Your task to perform on an android device: clear all cookies in the chrome app Image 0: 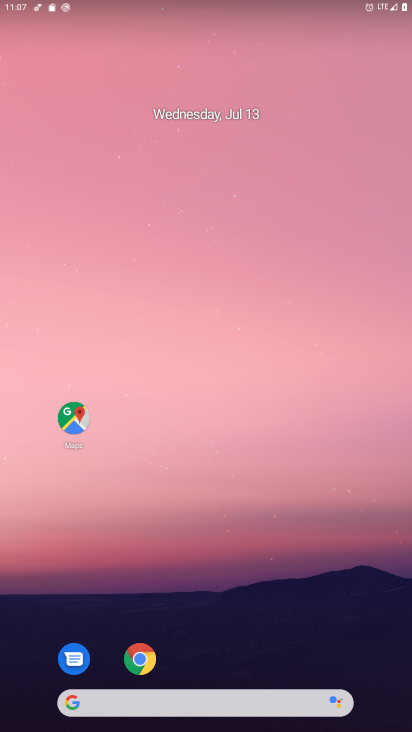
Step 0: press home button
Your task to perform on an android device: clear all cookies in the chrome app Image 1: 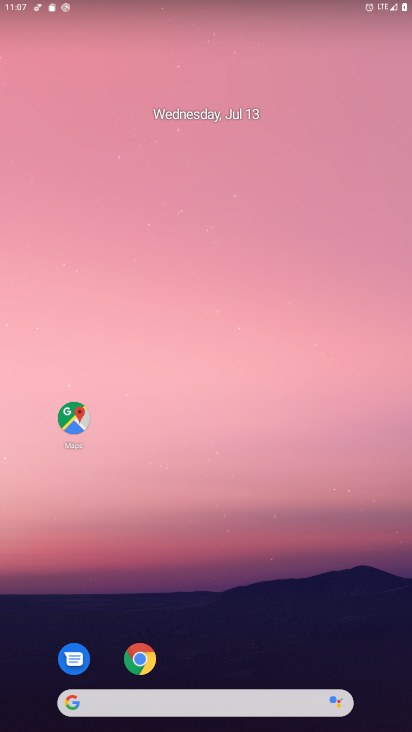
Step 1: click (138, 655)
Your task to perform on an android device: clear all cookies in the chrome app Image 2: 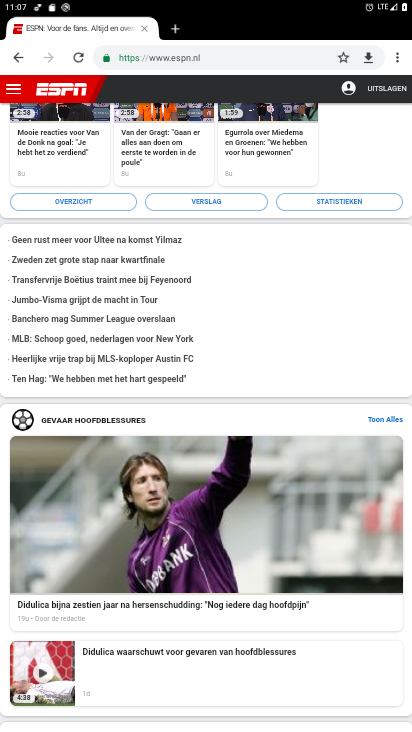
Step 2: click (396, 56)
Your task to perform on an android device: clear all cookies in the chrome app Image 3: 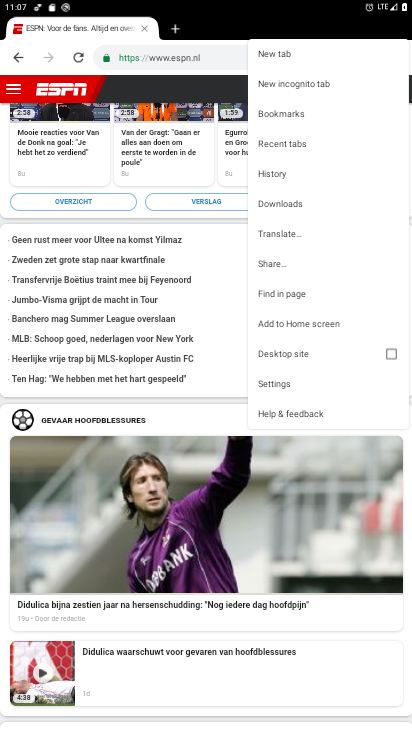
Step 3: click (289, 177)
Your task to perform on an android device: clear all cookies in the chrome app Image 4: 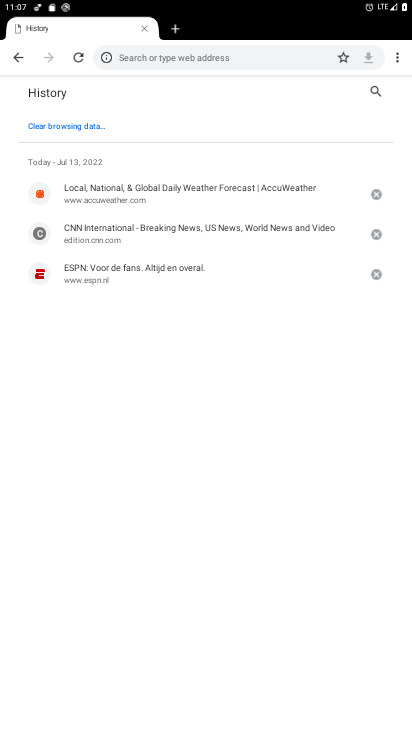
Step 4: click (85, 124)
Your task to perform on an android device: clear all cookies in the chrome app Image 5: 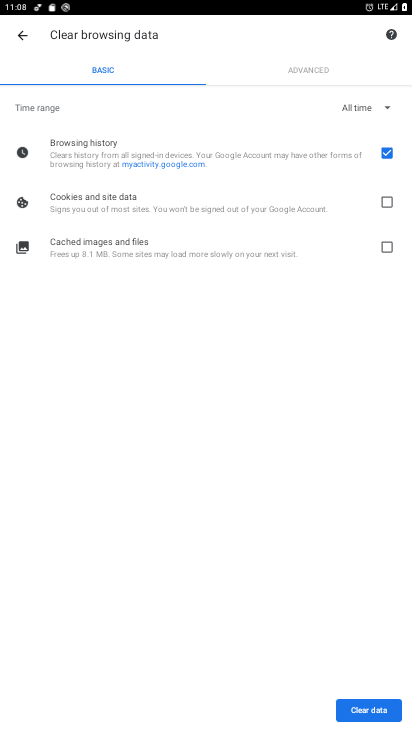
Step 5: click (384, 151)
Your task to perform on an android device: clear all cookies in the chrome app Image 6: 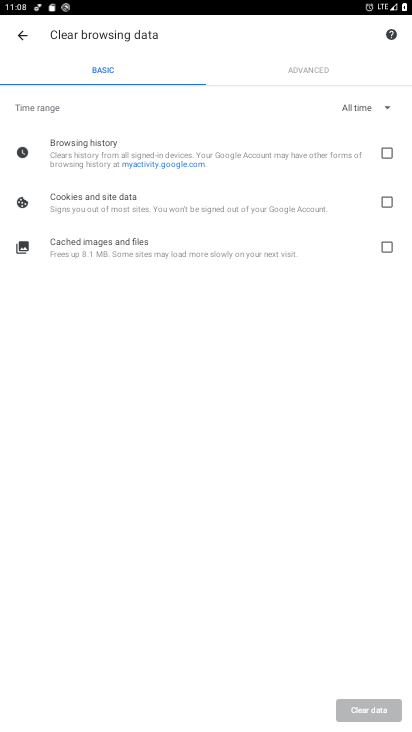
Step 6: click (386, 204)
Your task to perform on an android device: clear all cookies in the chrome app Image 7: 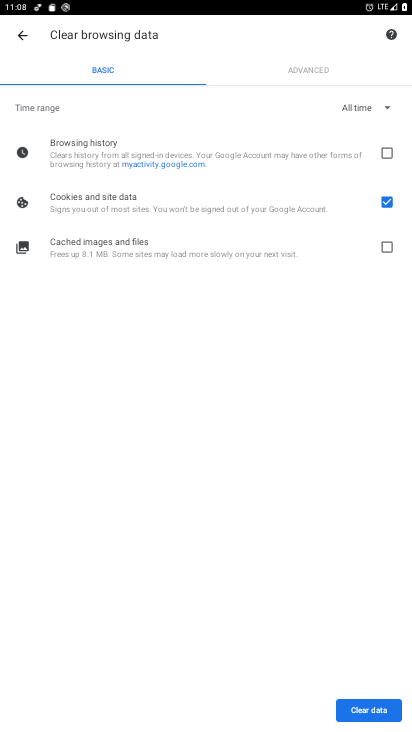
Step 7: click (369, 708)
Your task to perform on an android device: clear all cookies in the chrome app Image 8: 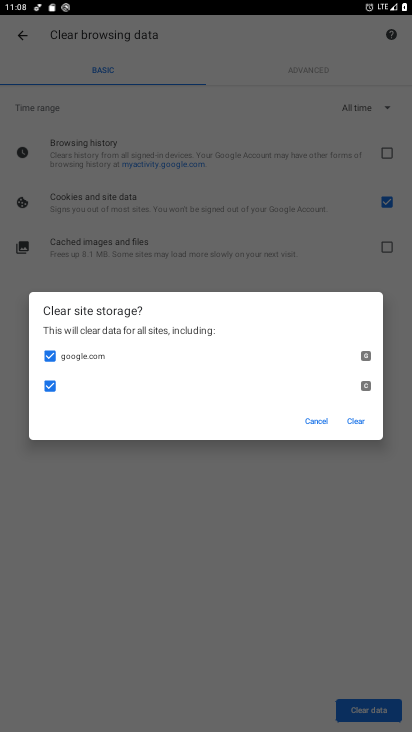
Step 8: click (348, 422)
Your task to perform on an android device: clear all cookies in the chrome app Image 9: 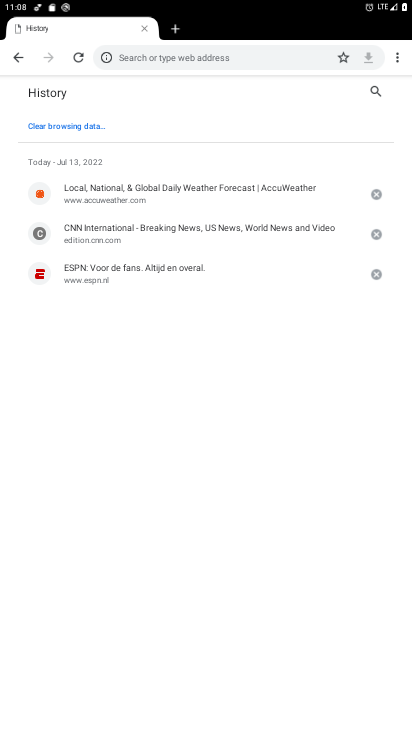
Step 9: task complete